Your task to perform on an android device: find photos in the google photos app Image 0: 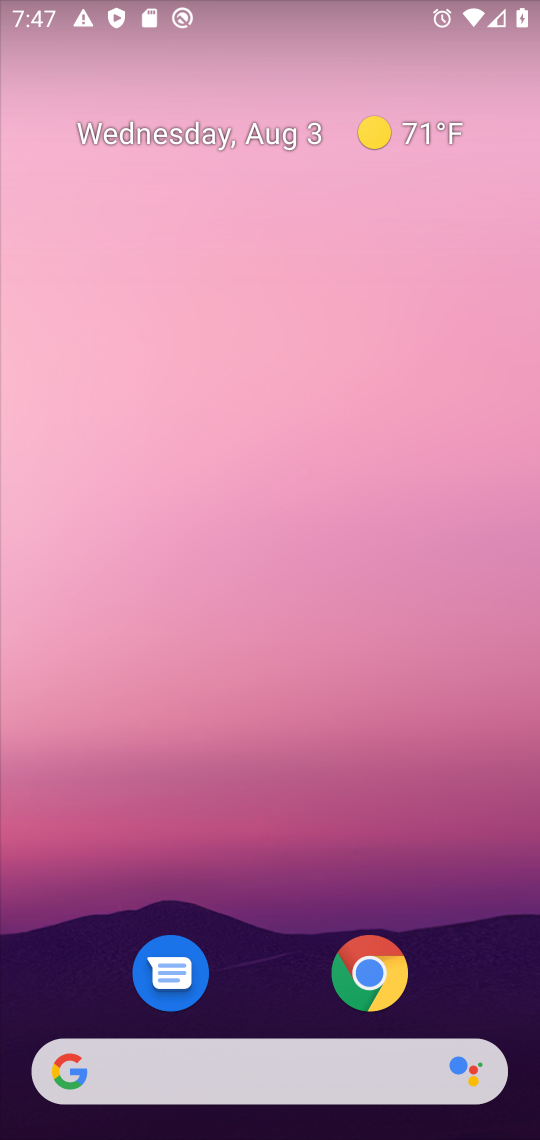
Step 0: drag from (227, 787) to (213, 172)
Your task to perform on an android device: find photos in the google photos app Image 1: 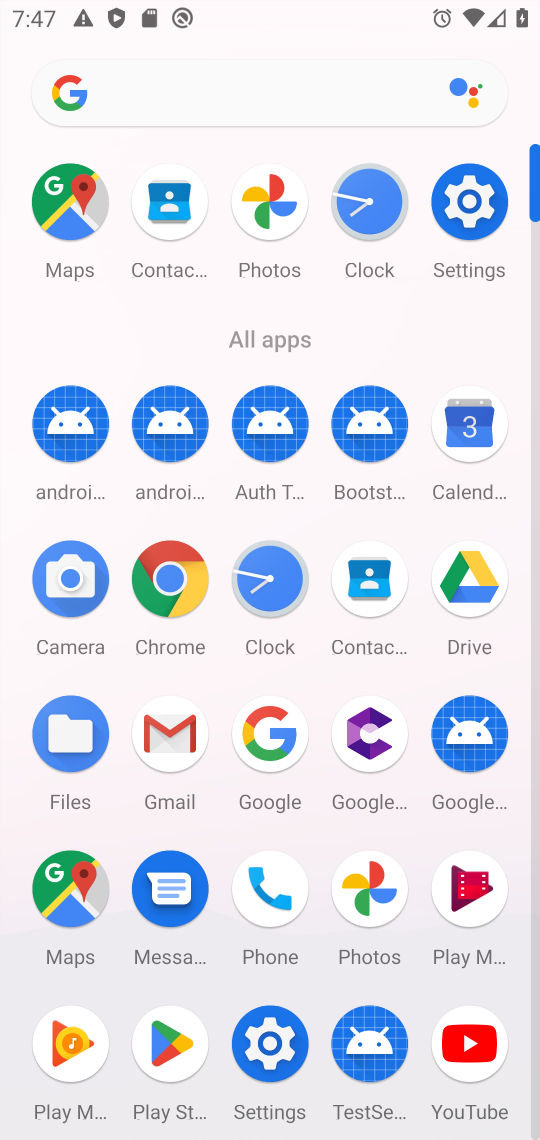
Step 1: click (360, 872)
Your task to perform on an android device: find photos in the google photos app Image 2: 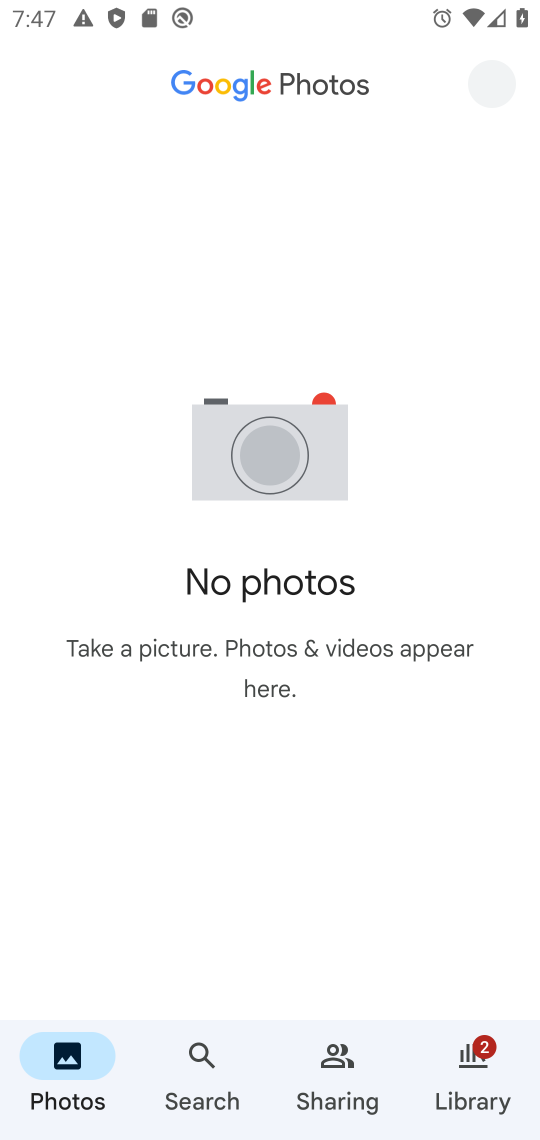
Step 2: task complete